Your task to perform on an android device: Open the map Image 0: 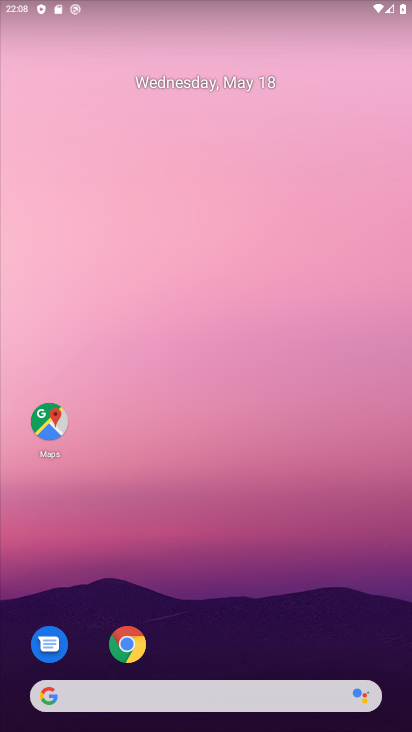
Step 0: click (45, 422)
Your task to perform on an android device: Open the map Image 1: 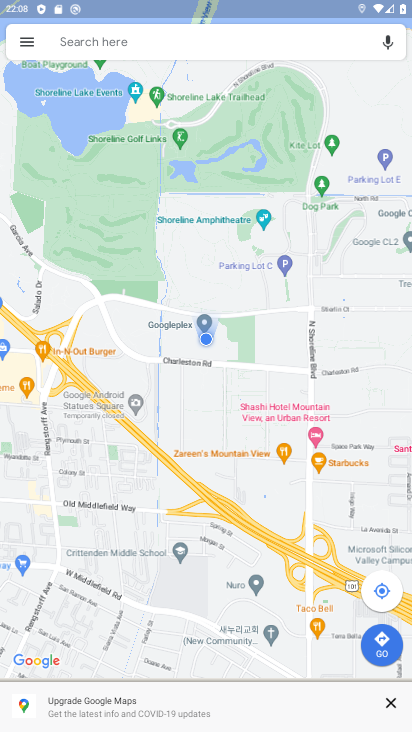
Step 1: task complete